Your task to perform on an android device: change notifications settings Image 0: 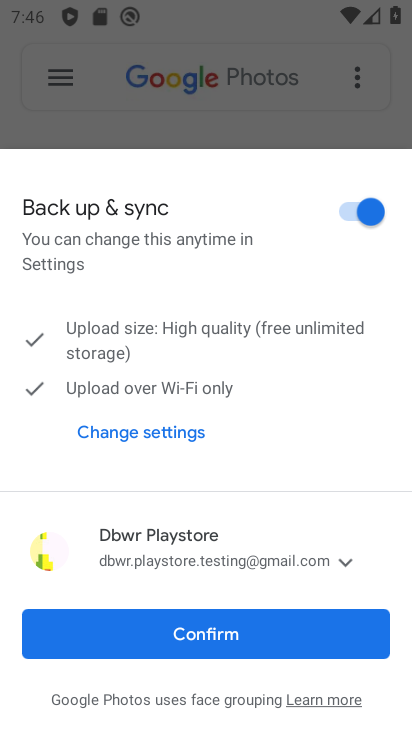
Step 0: press home button
Your task to perform on an android device: change notifications settings Image 1: 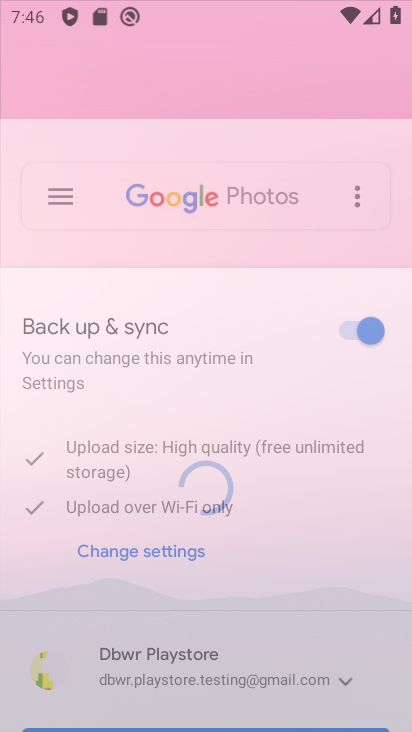
Step 1: press home button
Your task to perform on an android device: change notifications settings Image 2: 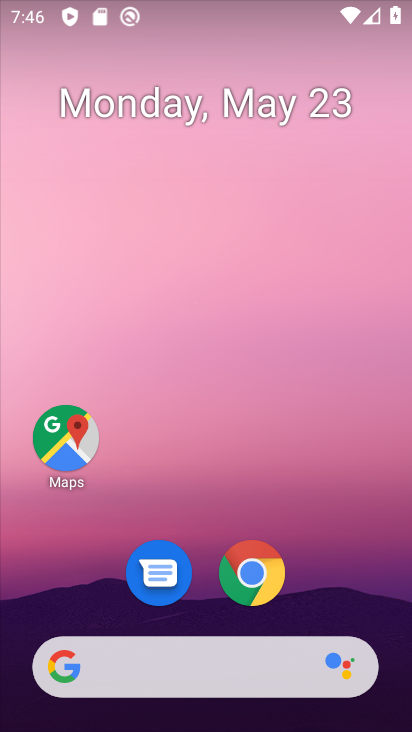
Step 2: drag from (318, 588) to (287, 81)
Your task to perform on an android device: change notifications settings Image 3: 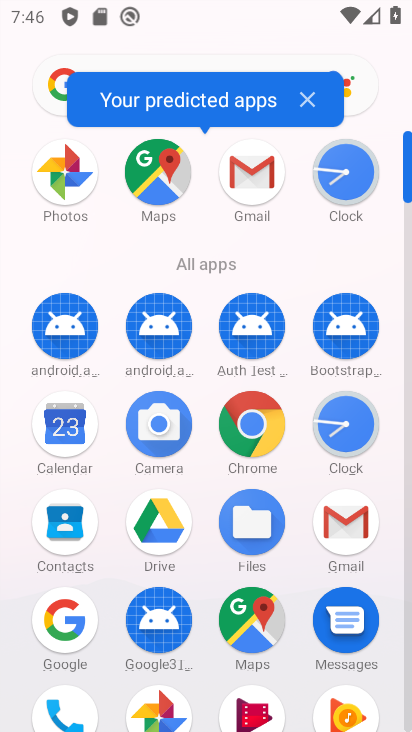
Step 3: drag from (208, 583) to (248, 103)
Your task to perform on an android device: change notifications settings Image 4: 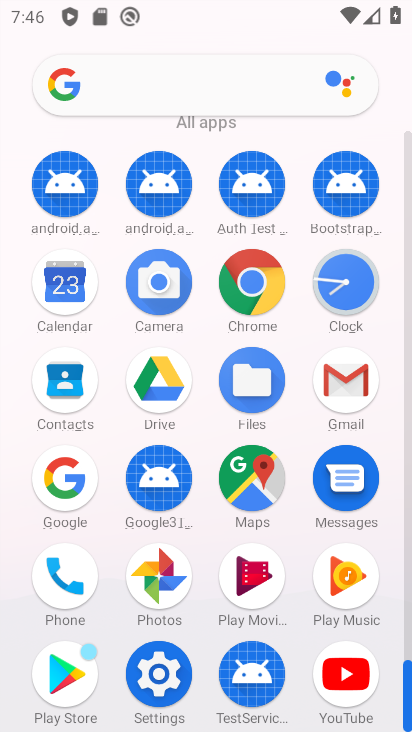
Step 4: click (155, 675)
Your task to perform on an android device: change notifications settings Image 5: 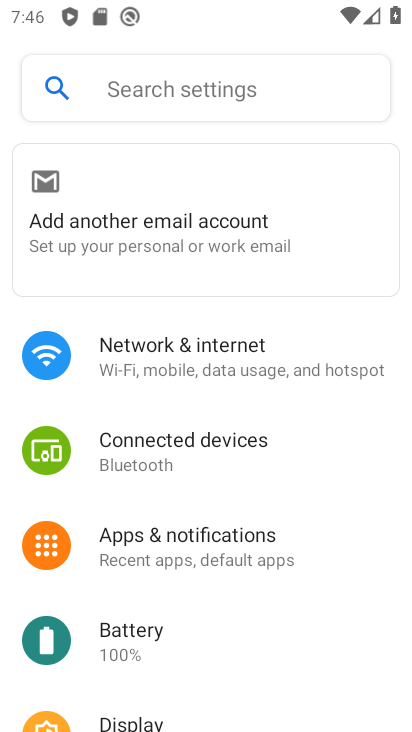
Step 5: click (163, 561)
Your task to perform on an android device: change notifications settings Image 6: 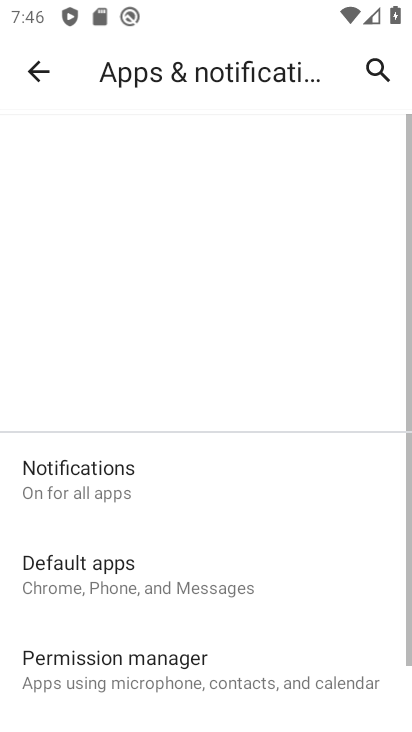
Step 6: drag from (299, 722) to (284, 503)
Your task to perform on an android device: change notifications settings Image 7: 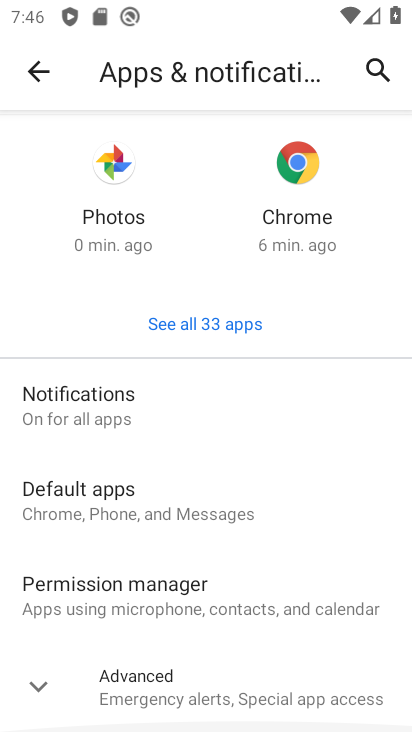
Step 7: click (90, 389)
Your task to perform on an android device: change notifications settings Image 8: 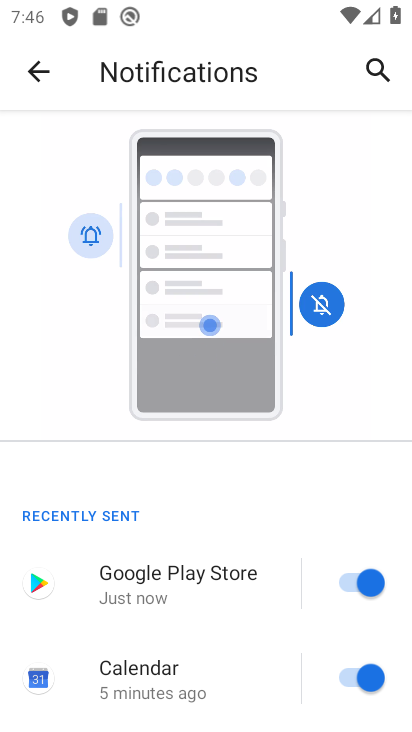
Step 8: drag from (253, 632) to (283, 123)
Your task to perform on an android device: change notifications settings Image 9: 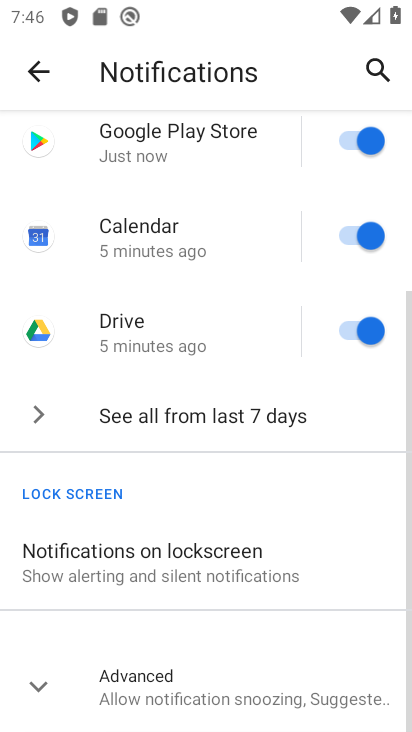
Step 9: drag from (239, 639) to (228, 305)
Your task to perform on an android device: change notifications settings Image 10: 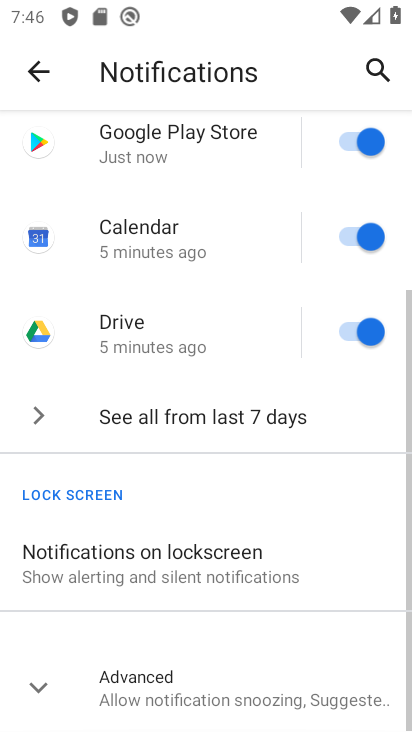
Step 10: click (106, 692)
Your task to perform on an android device: change notifications settings Image 11: 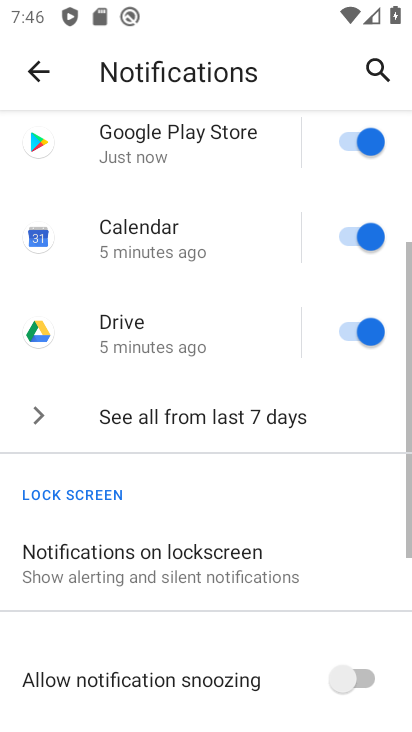
Step 11: drag from (282, 647) to (290, 191)
Your task to perform on an android device: change notifications settings Image 12: 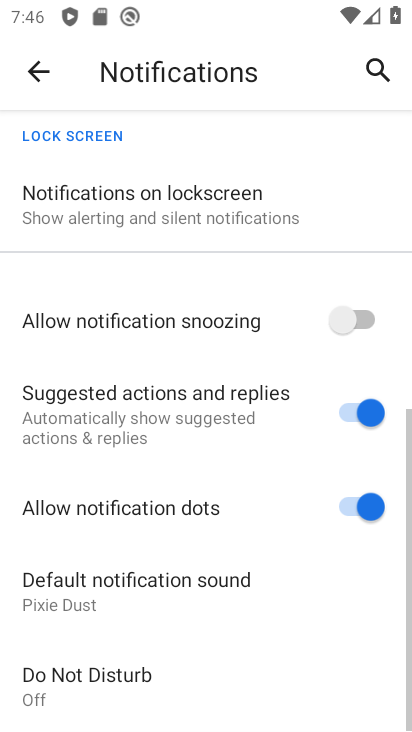
Step 12: click (341, 307)
Your task to perform on an android device: change notifications settings Image 13: 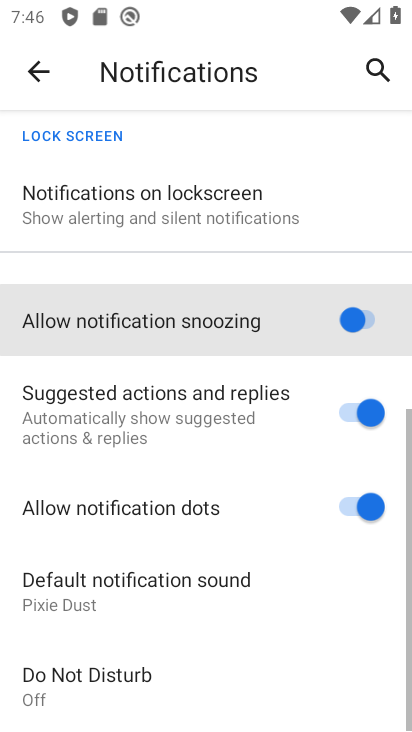
Step 13: click (375, 420)
Your task to perform on an android device: change notifications settings Image 14: 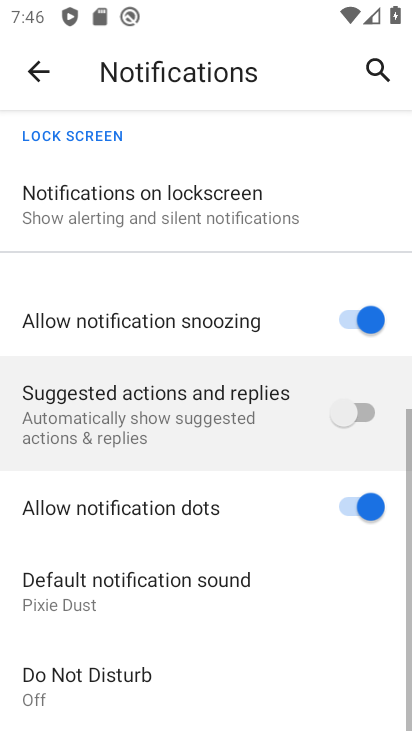
Step 14: click (370, 506)
Your task to perform on an android device: change notifications settings Image 15: 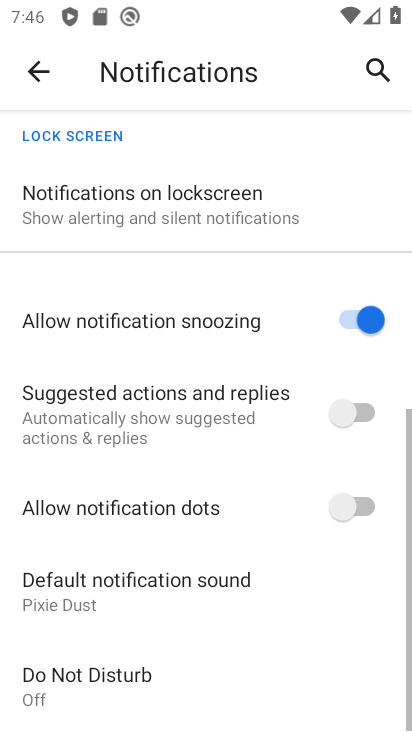
Step 15: task complete